Your task to perform on an android device: change the clock style Image 0: 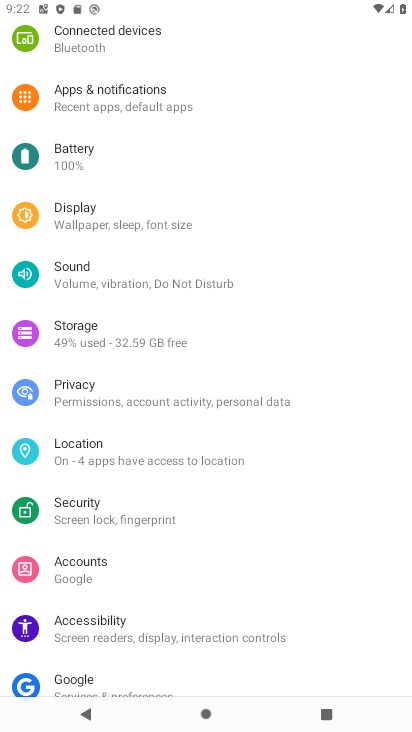
Step 0: press home button
Your task to perform on an android device: change the clock style Image 1: 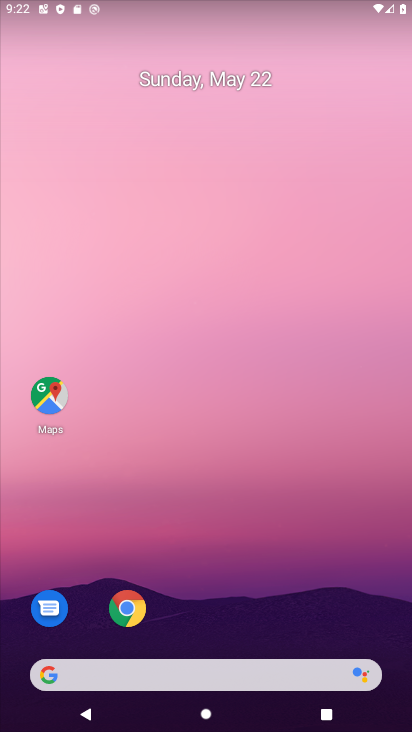
Step 1: drag from (304, 531) to (261, 60)
Your task to perform on an android device: change the clock style Image 2: 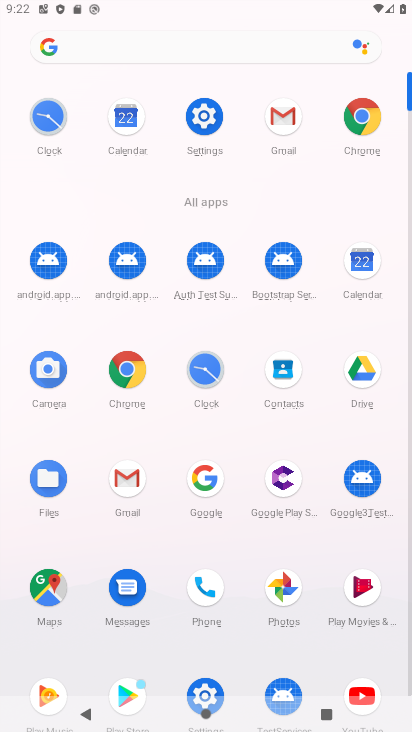
Step 2: click (214, 376)
Your task to perform on an android device: change the clock style Image 3: 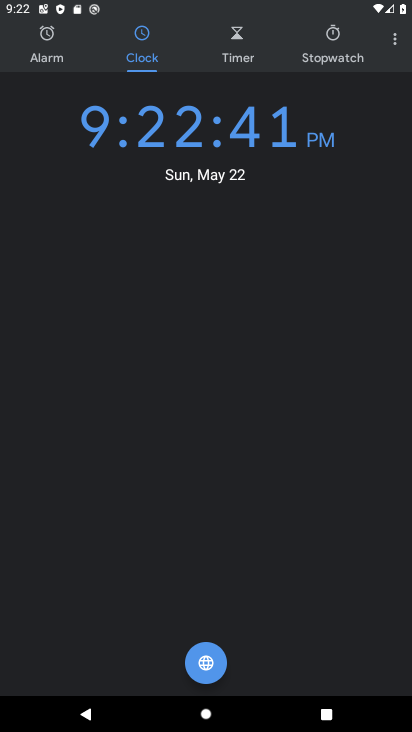
Step 3: click (396, 39)
Your task to perform on an android device: change the clock style Image 4: 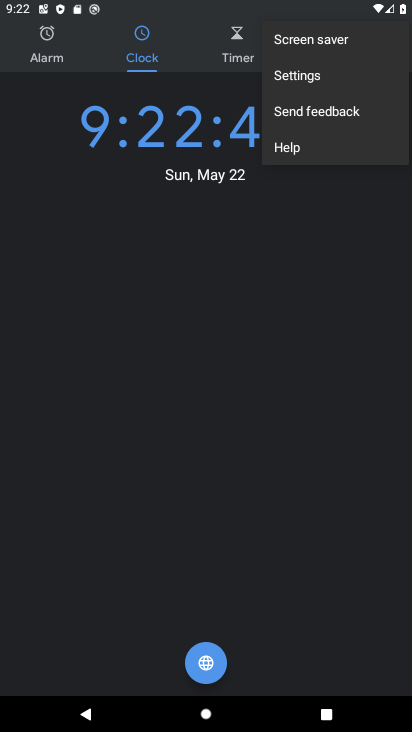
Step 4: click (333, 78)
Your task to perform on an android device: change the clock style Image 5: 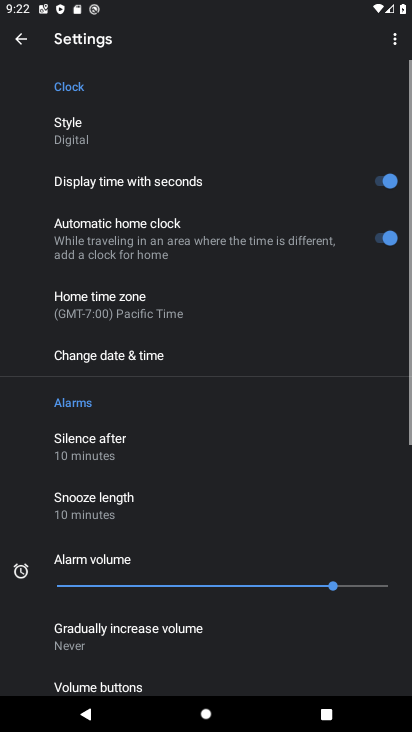
Step 5: click (115, 143)
Your task to perform on an android device: change the clock style Image 6: 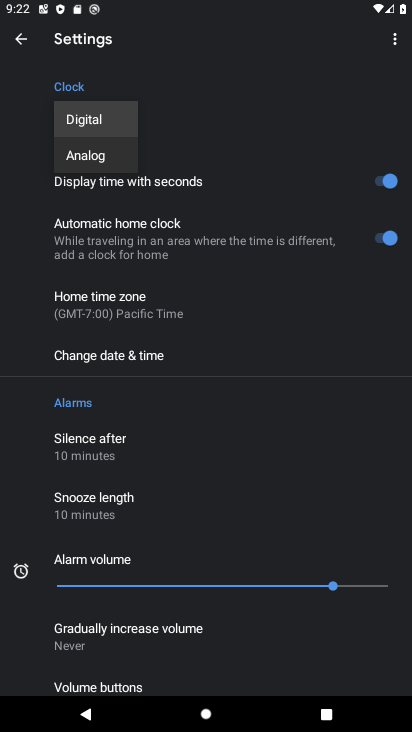
Step 6: click (103, 163)
Your task to perform on an android device: change the clock style Image 7: 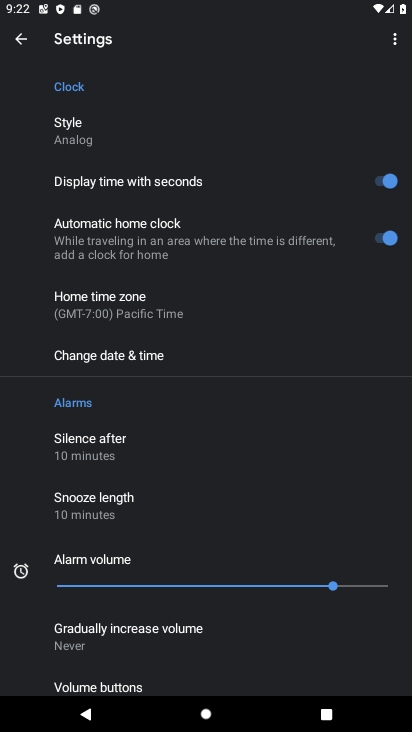
Step 7: task complete